Your task to perform on an android device: install app "Gboard" Image 0: 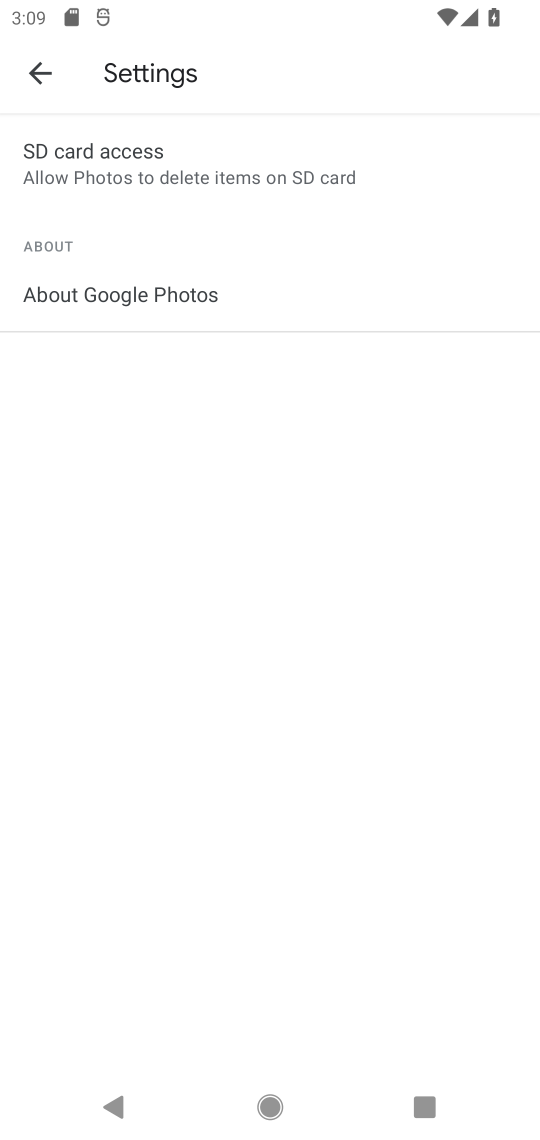
Step 0: press home button
Your task to perform on an android device: install app "Gboard" Image 1: 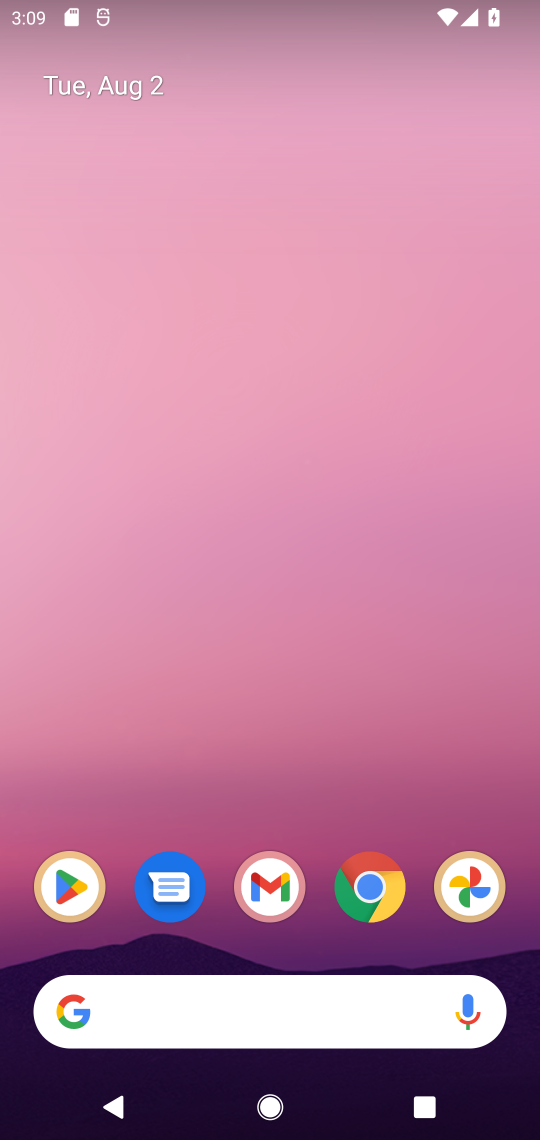
Step 1: drag from (152, 1046) to (350, 513)
Your task to perform on an android device: install app "Gboard" Image 2: 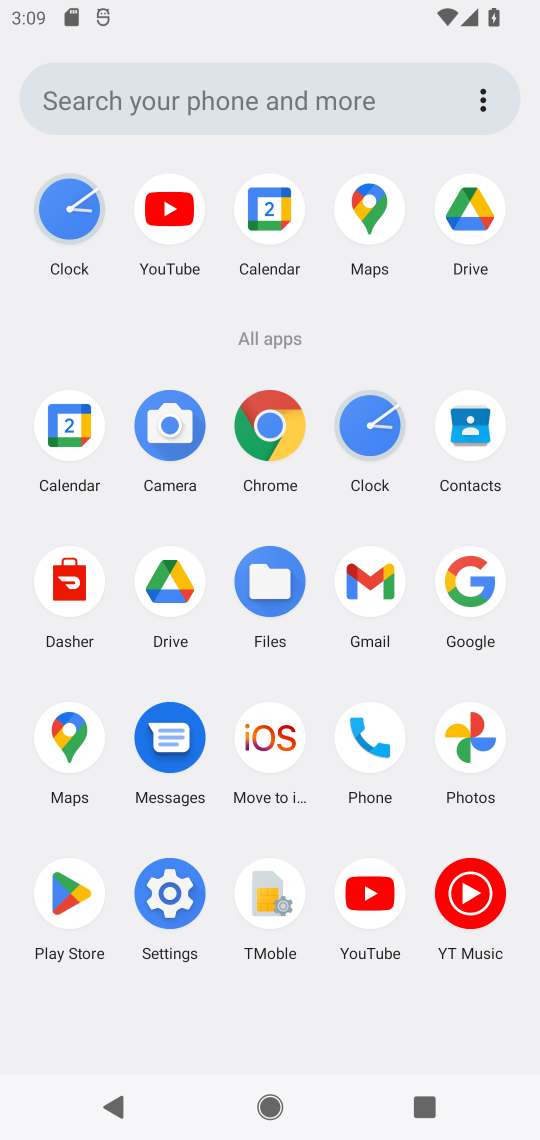
Step 2: click (48, 896)
Your task to perform on an android device: install app "Gboard" Image 3: 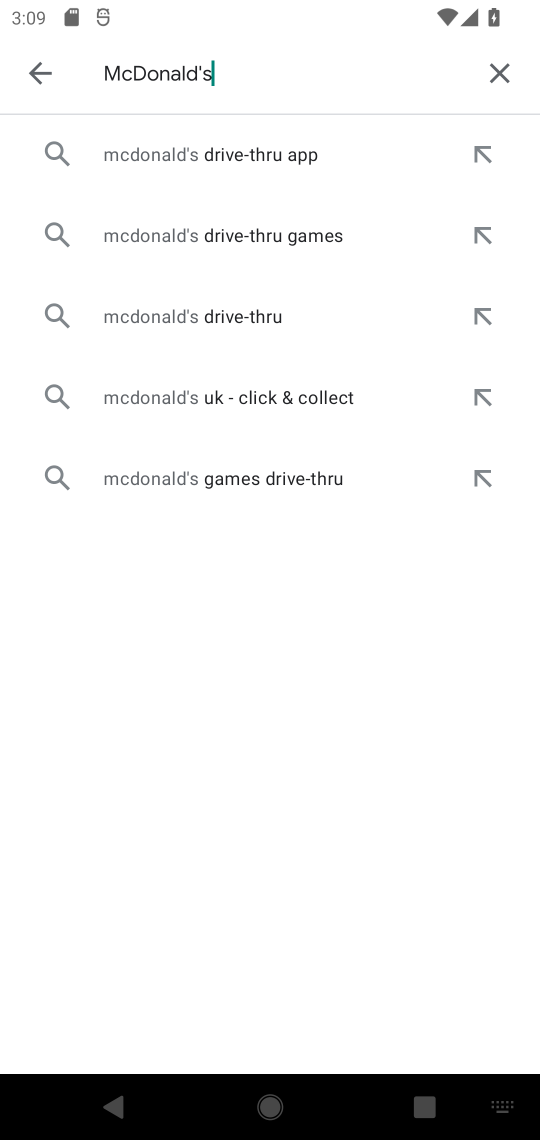
Step 3: click (509, 81)
Your task to perform on an android device: install app "Gboard" Image 4: 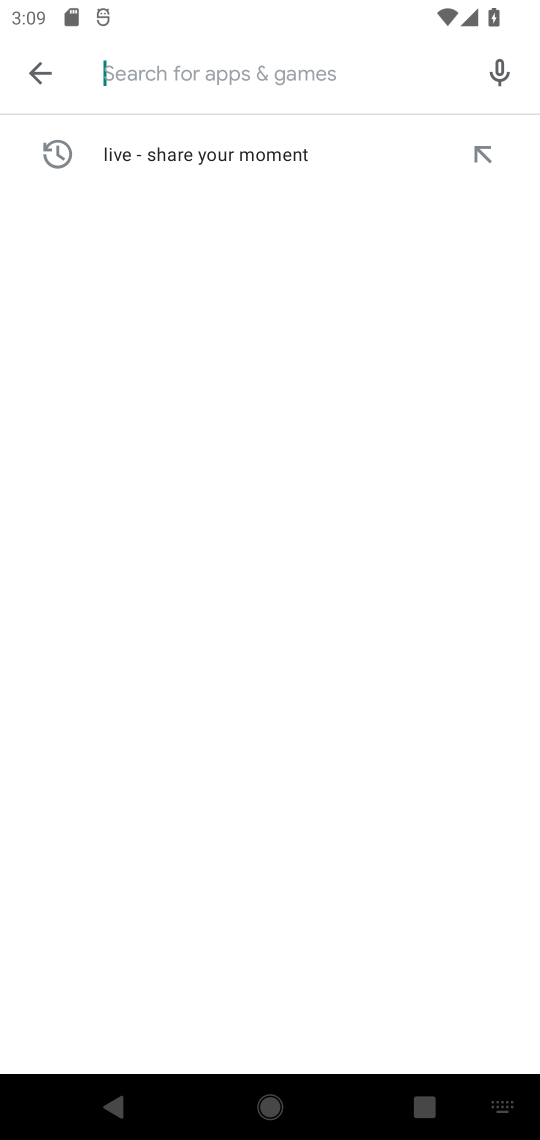
Step 4: type "Gboard"
Your task to perform on an android device: install app "Gboard" Image 5: 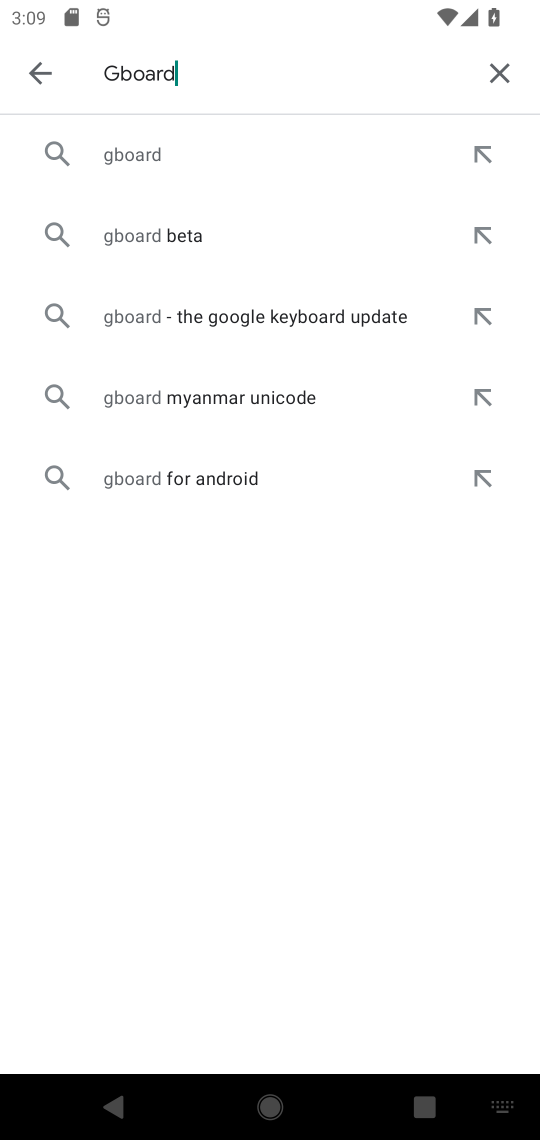
Step 5: click (129, 156)
Your task to perform on an android device: install app "Gboard" Image 6: 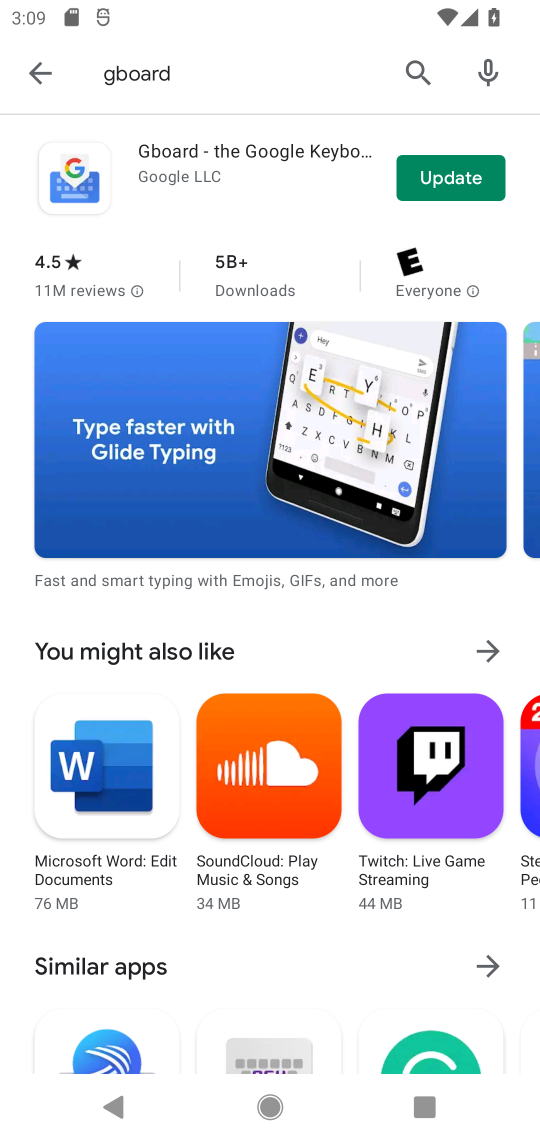
Step 6: task complete